Your task to perform on an android device: check data usage Image 0: 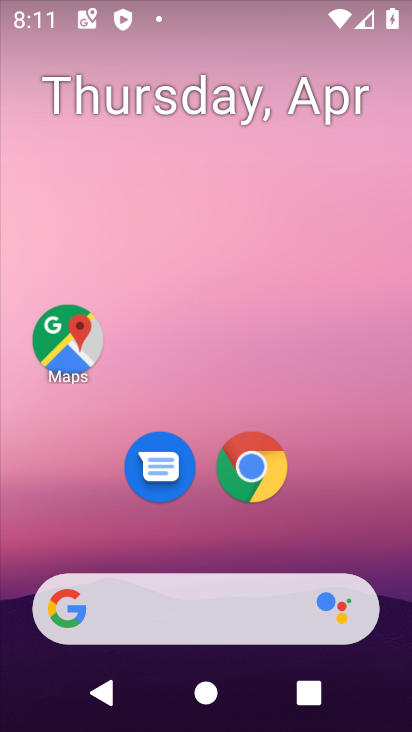
Step 0: drag from (171, 608) to (177, 31)
Your task to perform on an android device: check data usage Image 1: 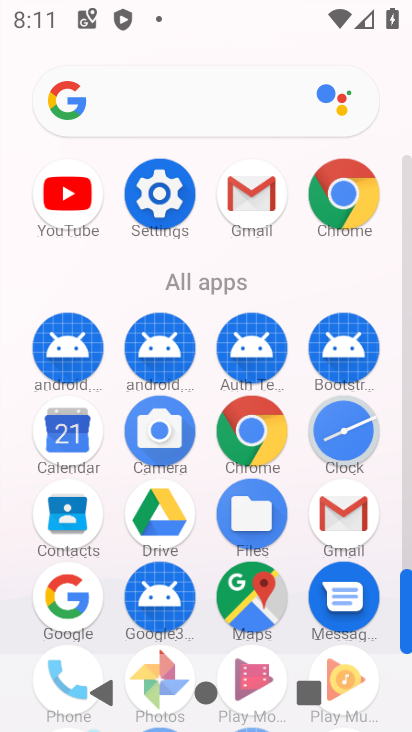
Step 1: click (149, 191)
Your task to perform on an android device: check data usage Image 2: 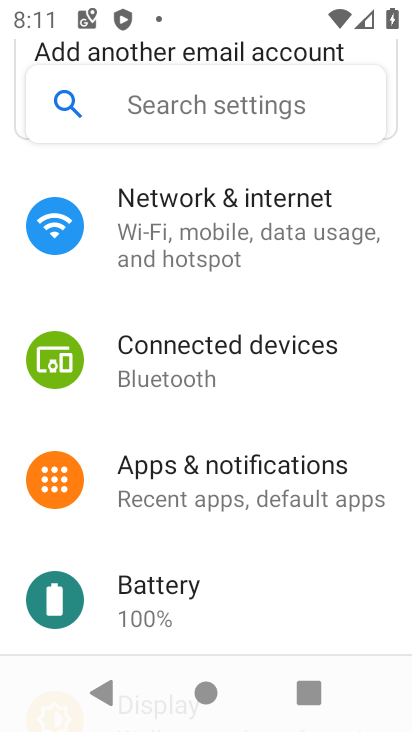
Step 2: click (275, 242)
Your task to perform on an android device: check data usage Image 3: 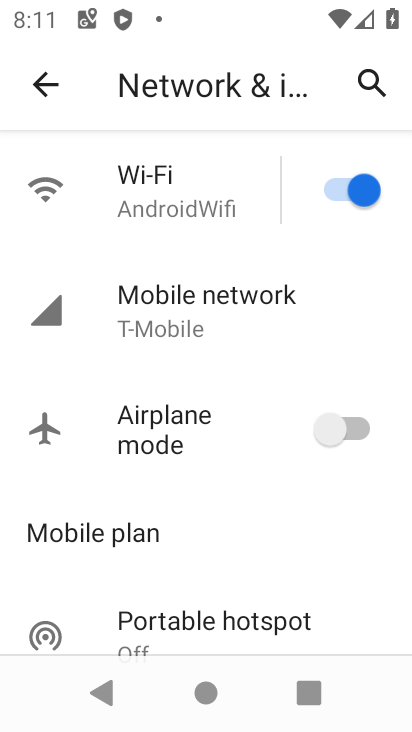
Step 3: click (206, 310)
Your task to perform on an android device: check data usage Image 4: 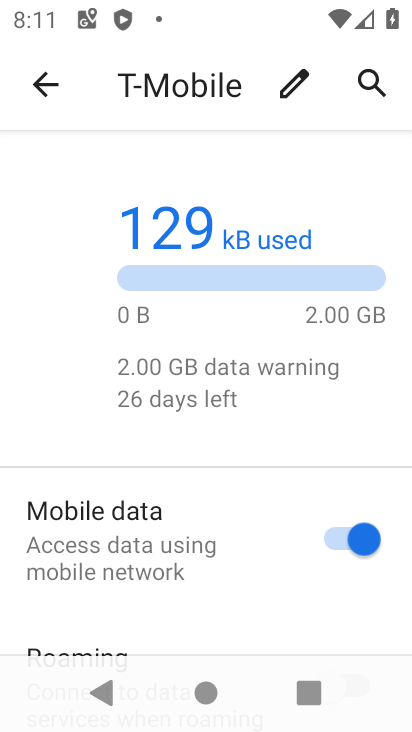
Step 4: task complete